Your task to perform on an android device: open the mobile data screen to see how much data has been used Image 0: 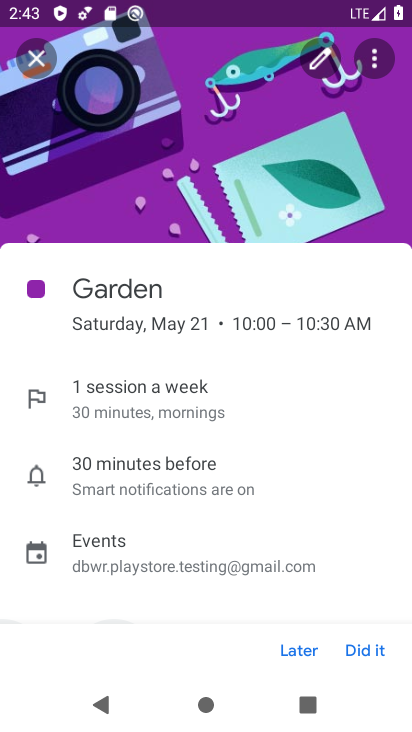
Step 0: press home button
Your task to perform on an android device: open the mobile data screen to see how much data has been used Image 1: 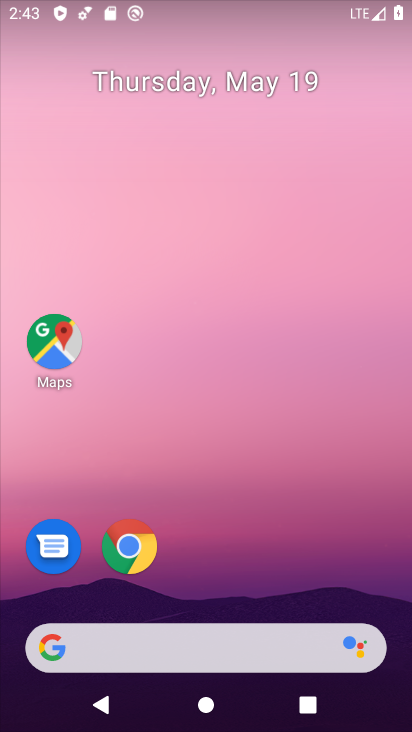
Step 1: drag from (206, 646) to (305, 84)
Your task to perform on an android device: open the mobile data screen to see how much data has been used Image 2: 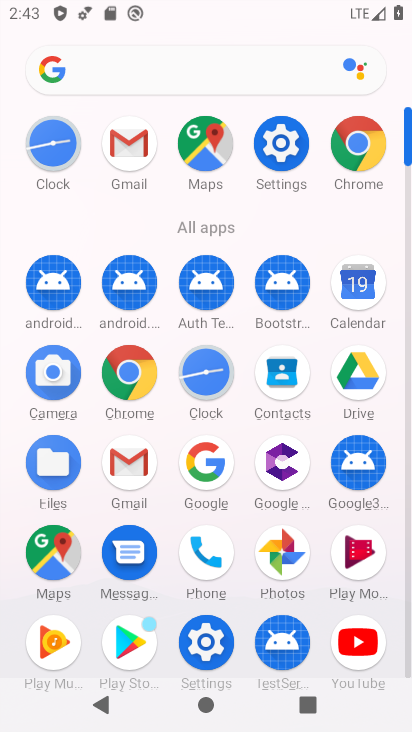
Step 2: click (284, 144)
Your task to perform on an android device: open the mobile data screen to see how much data has been used Image 3: 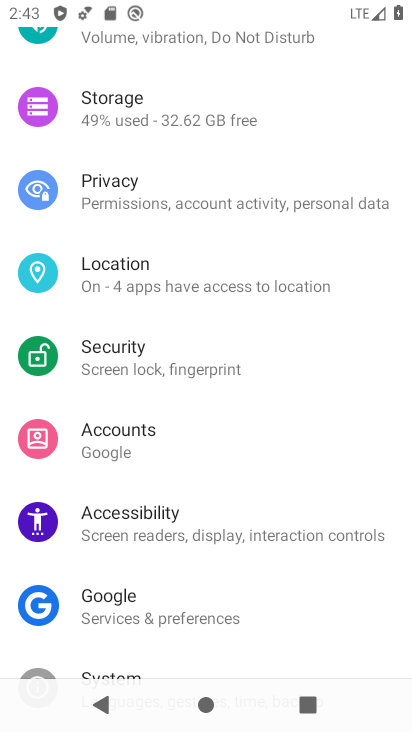
Step 3: drag from (285, 97) to (325, 583)
Your task to perform on an android device: open the mobile data screen to see how much data has been used Image 4: 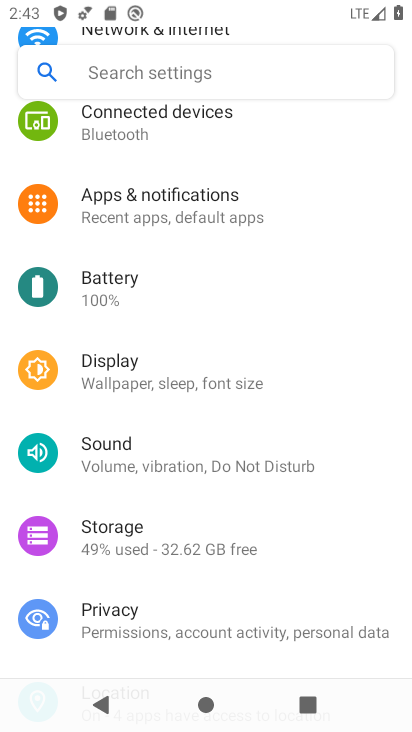
Step 4: drag from (313, 151) to (333, 607)
Your task to perform on an android device: open the mobile data screen to see how much data has been used Image 5: 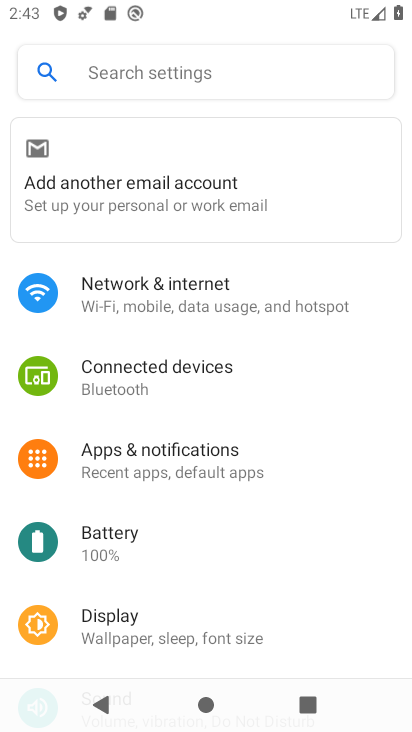
Step 5: click (217, 295)
Your task to perform on an android device: open the mobile data screen to see how much data has been used Image 6: 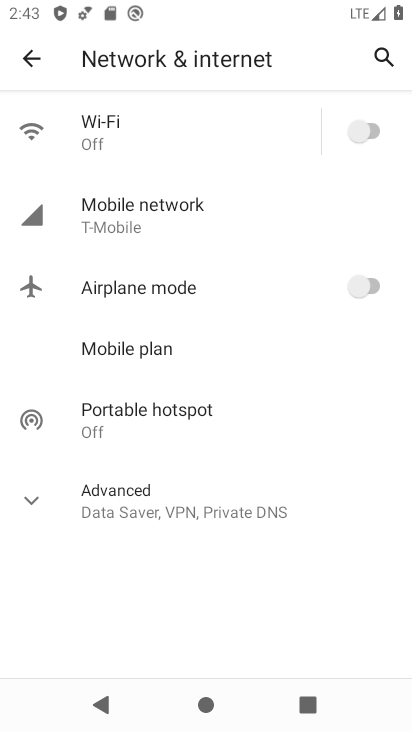
Step 6: click (149, 212)
Your task to perform on an android device: open the mobile data screen to see how much data has been used Image 7: 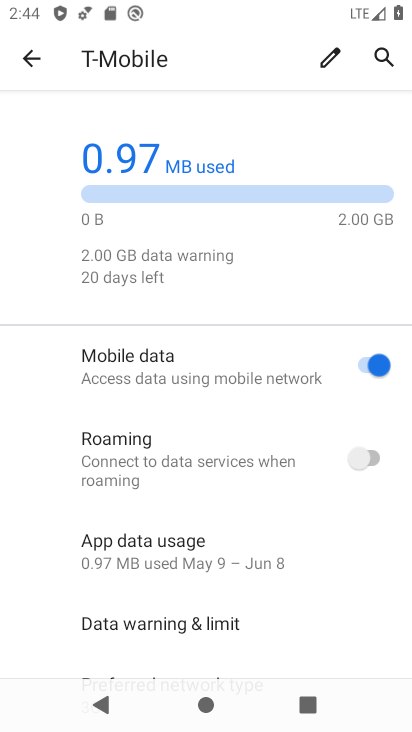
Step 7: task complete